Your task to perform on an android device: change alarm snooze length Image 0: 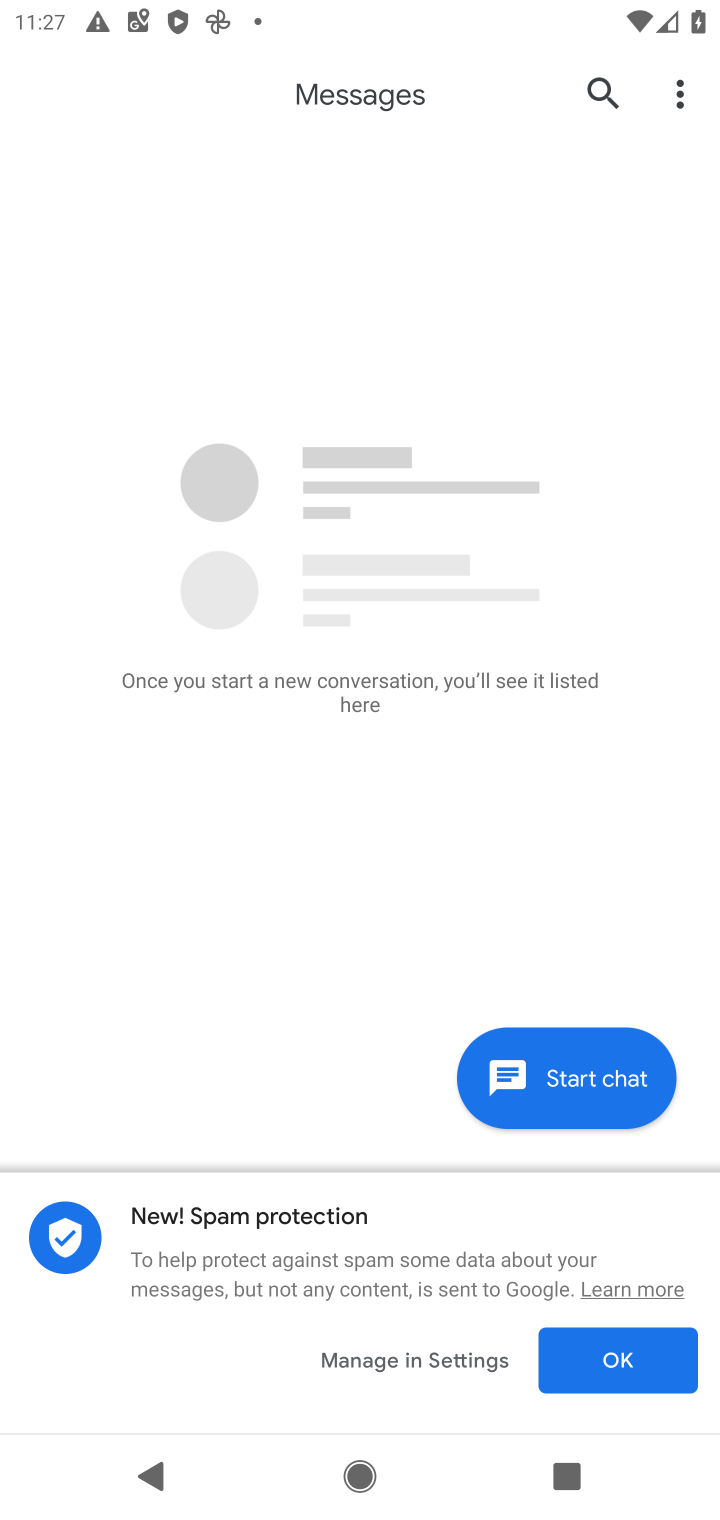
Step 0: press home button
Your task to perform on an android device: change alarm snooze length Image 1: 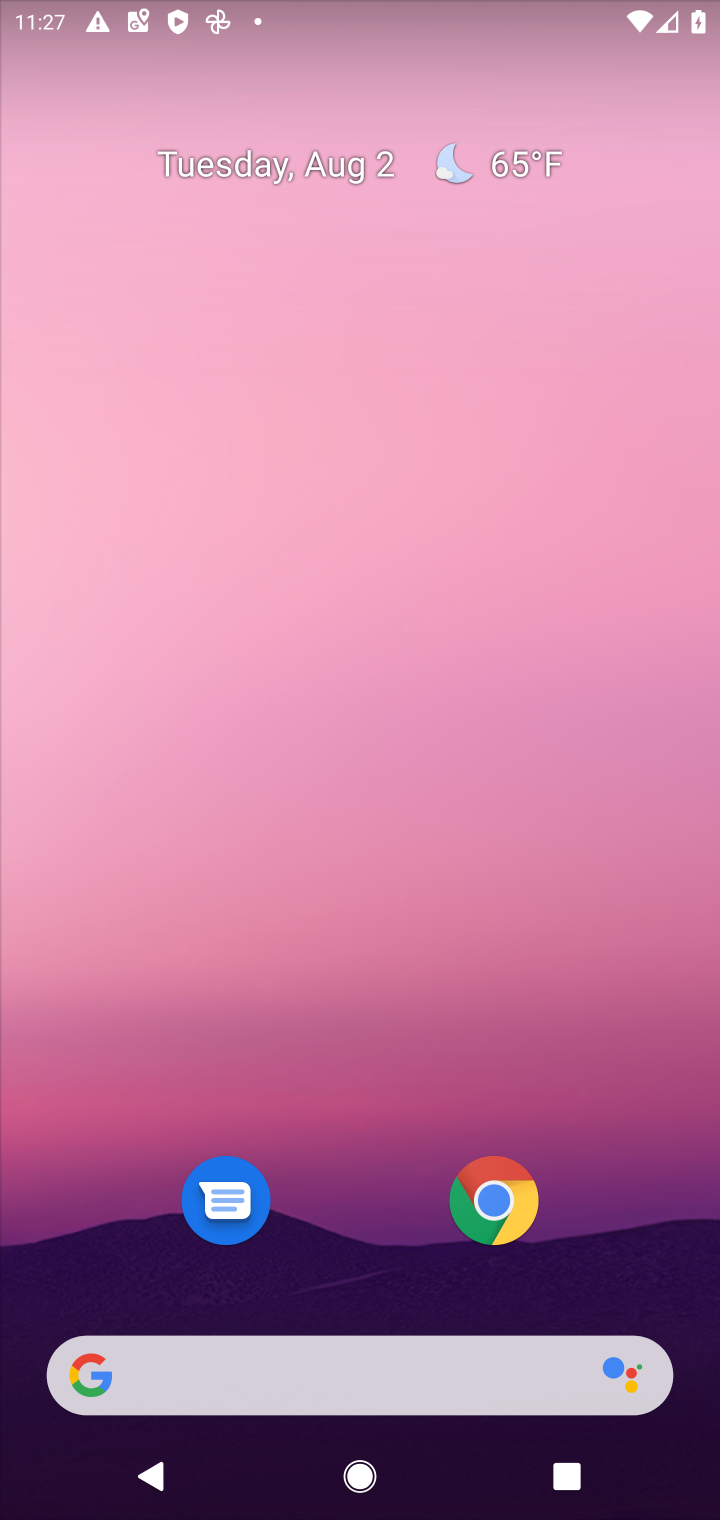
Step 1: drag from (683, 1296) to (570, 403)
Your task to perform on an android device: change alarm snooze length Image 2: 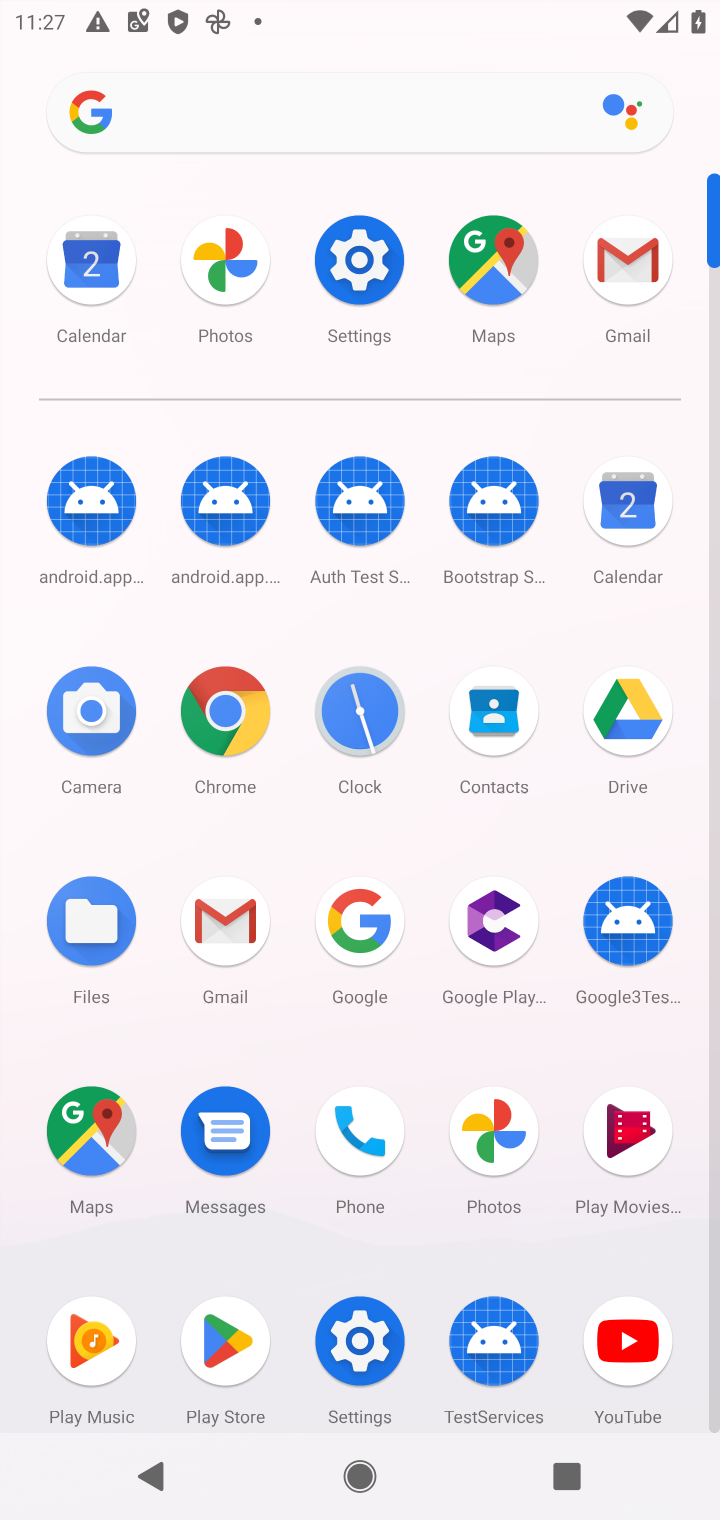
Step 2: click (358, 709)
Your task to perform on an android device: change alarm snooze length Image 3: 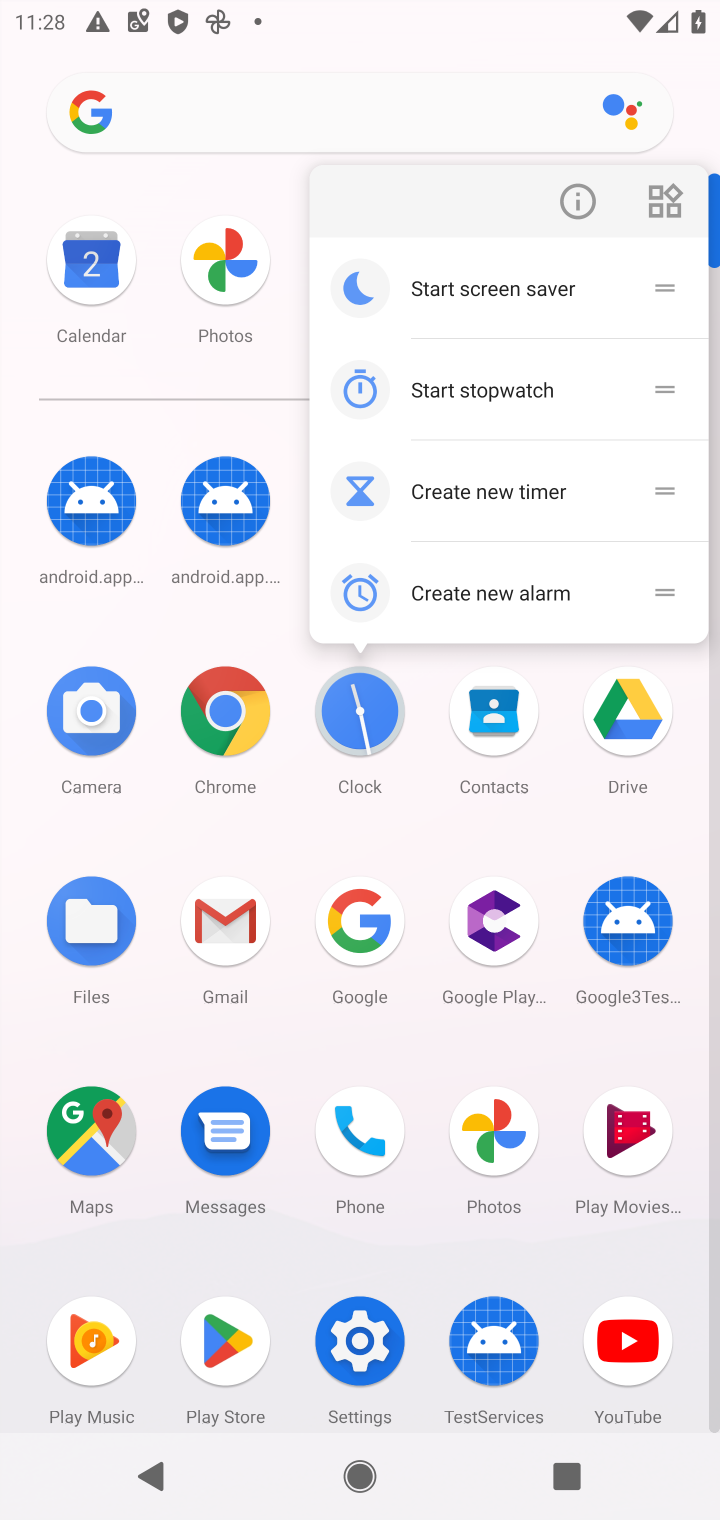
Step 3: click (353, 706)
Your task to perform on an android device: change alarm snooze length Image 4: 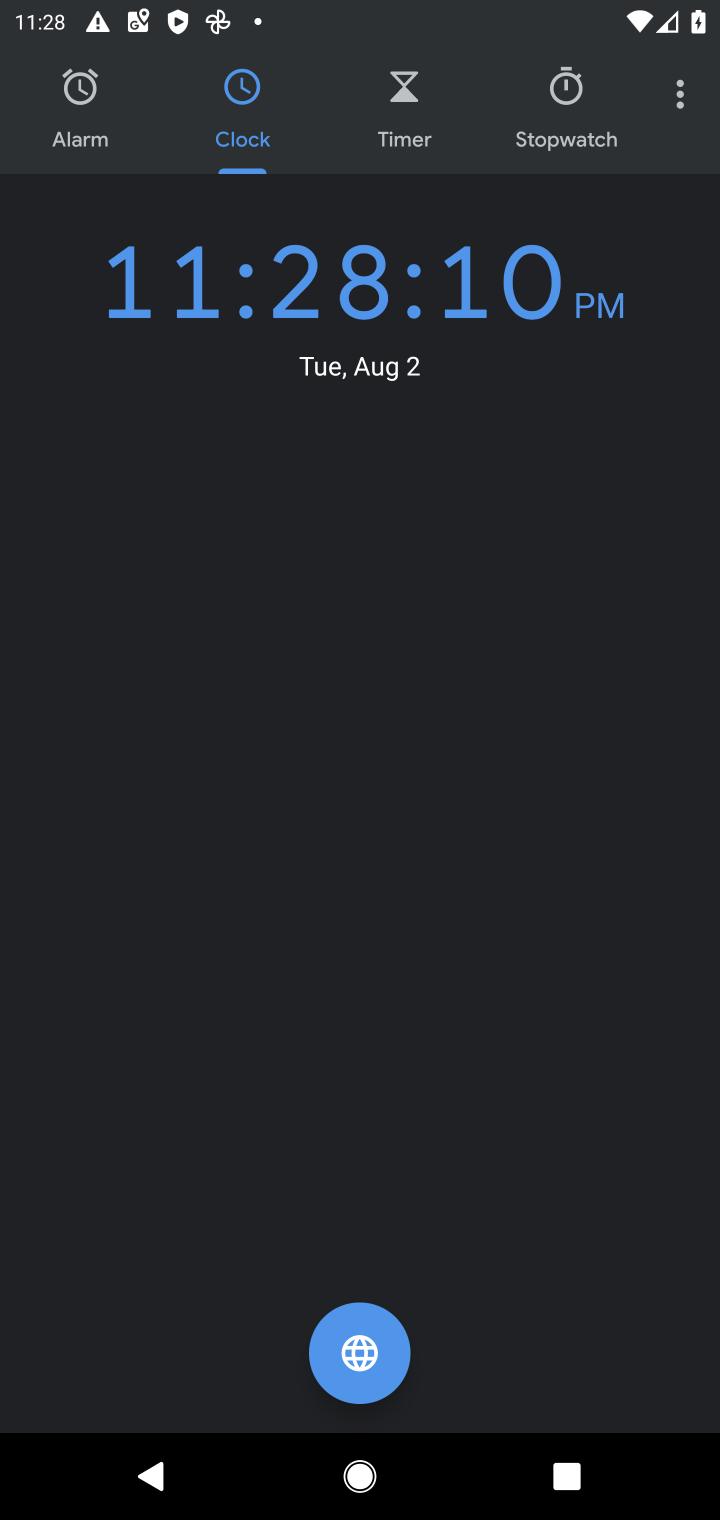
Step 4: click (681, 116)
Your task to perform on an android device: change alarm snooze length Image 5: 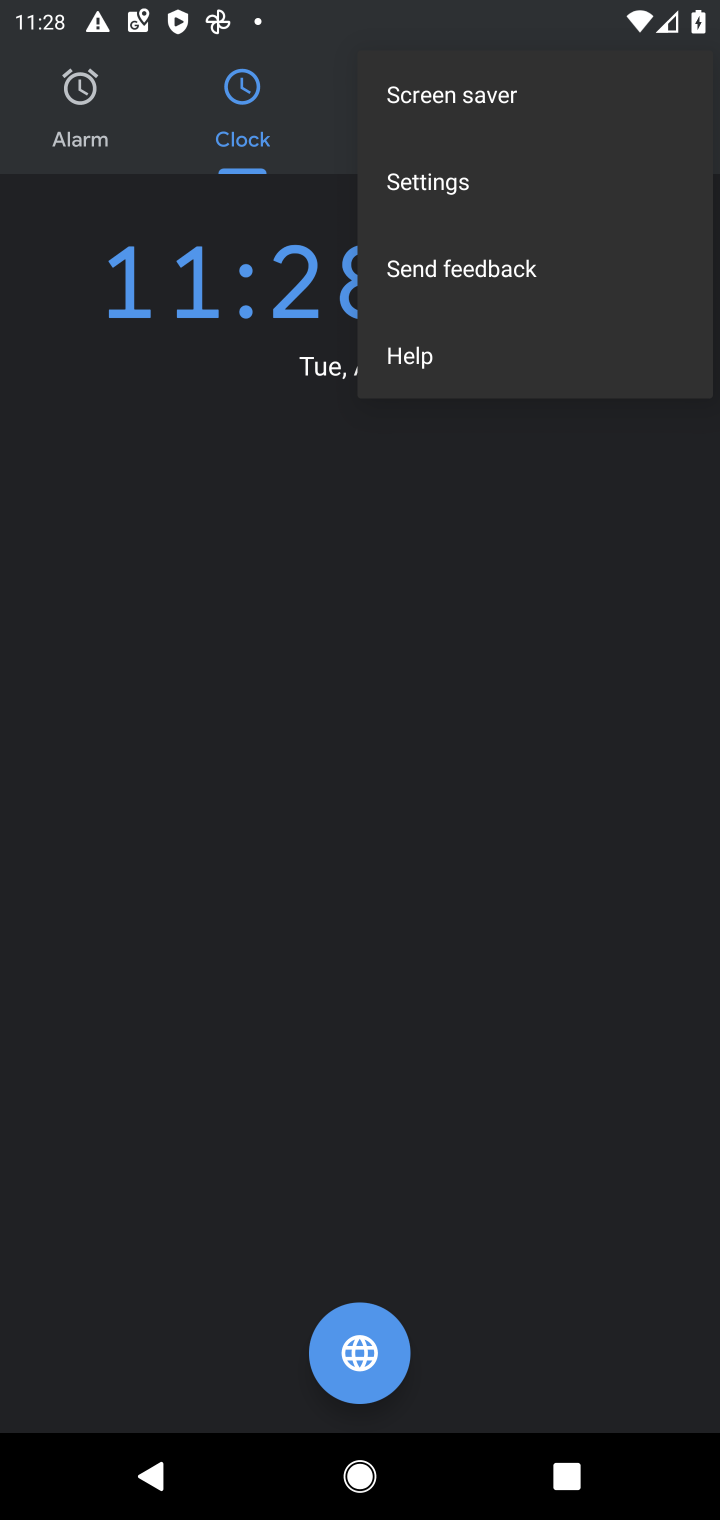
Step 5: click (443, 176)
Your task to perform on an android device: change alarm snooze length Image 6: 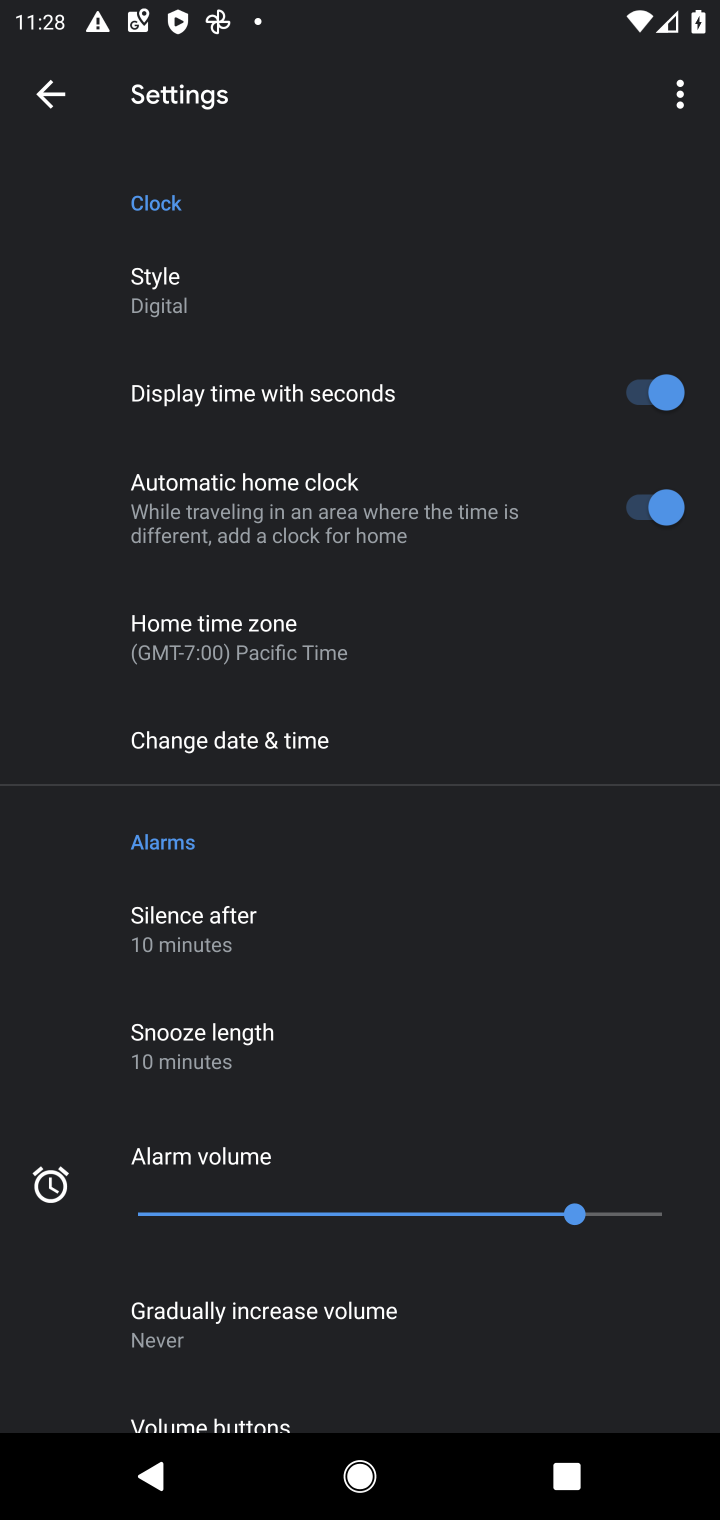
Step 6: click (211, 1036)
Your task to perform on an android device: change alarm snooze length Image 7: 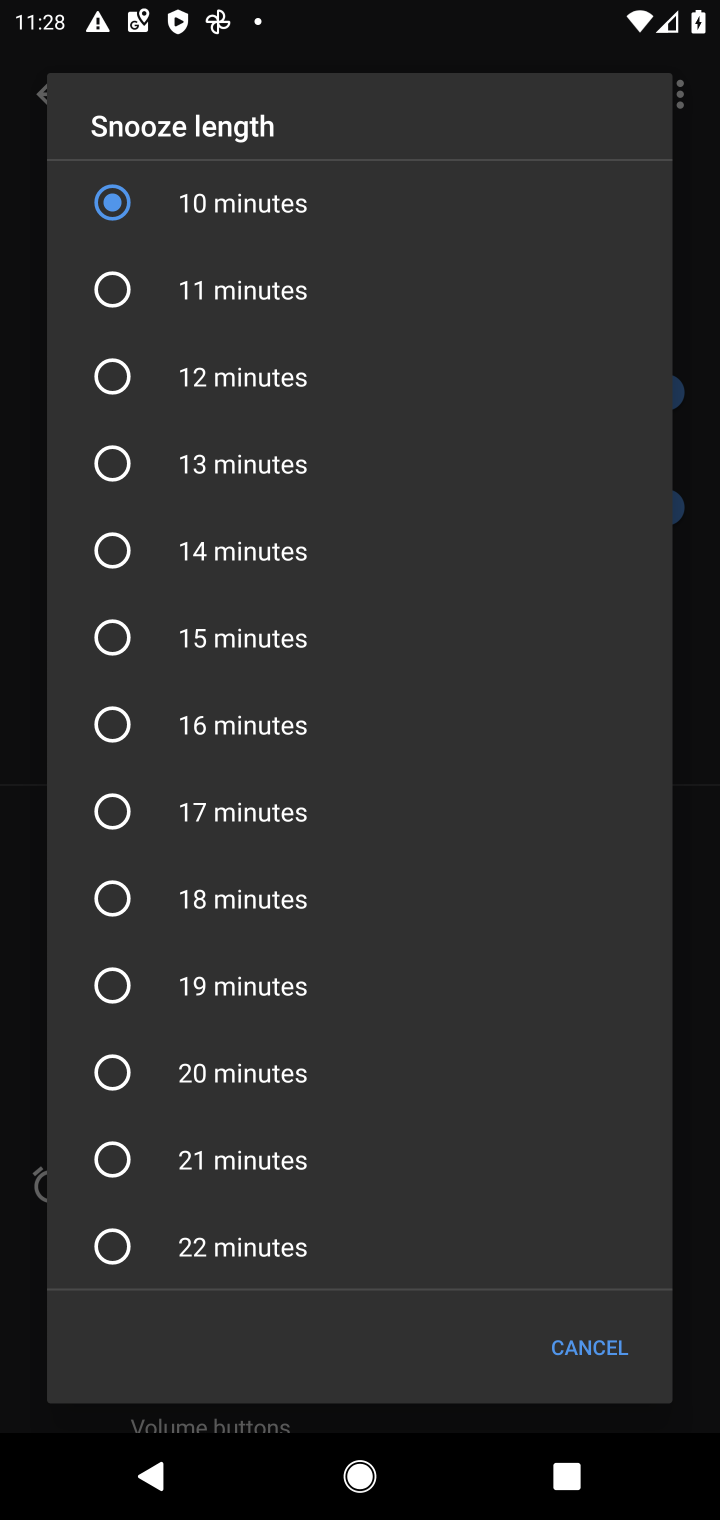
Step 7: click (117, 640)
Your task to perform on an android device: change alarm snooze length Image 8: 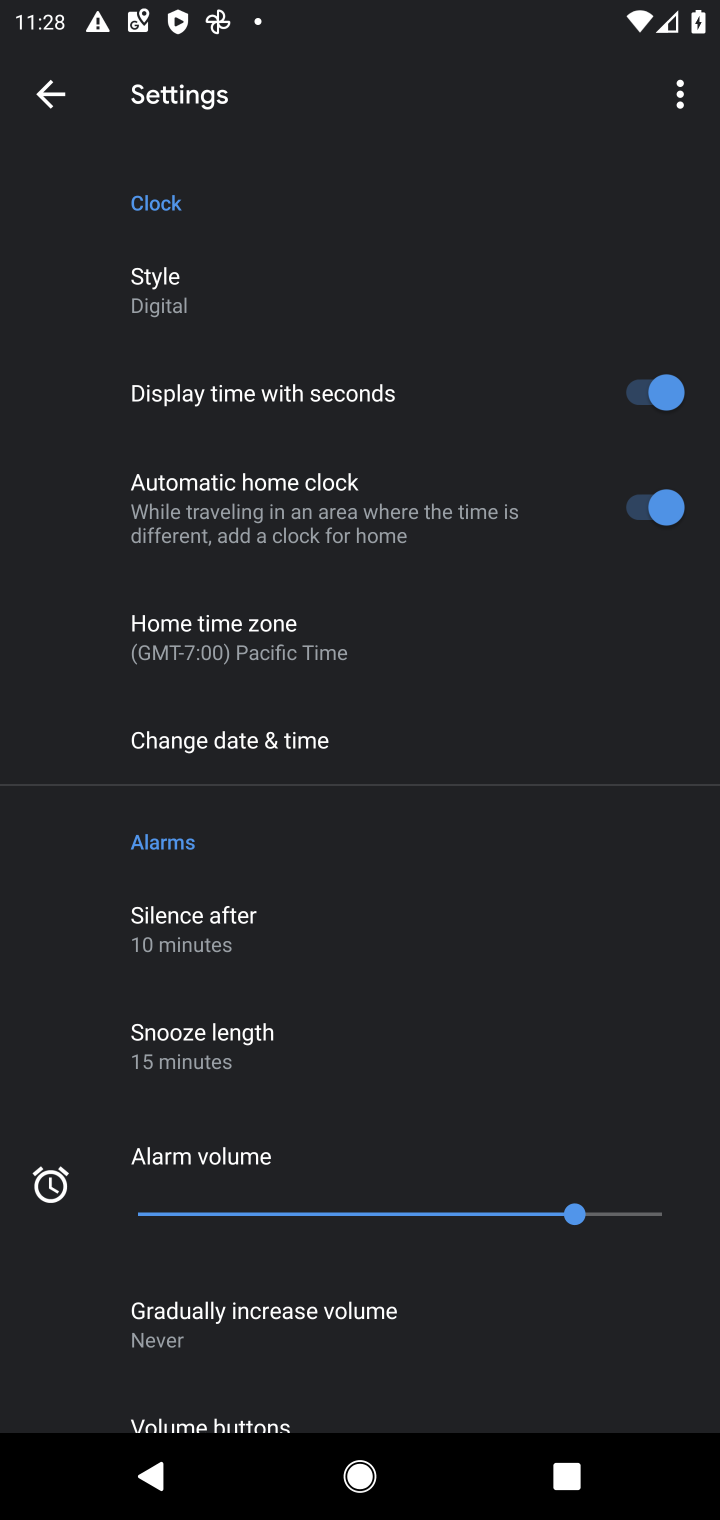
Step 8: task complete